Your task to perform on an android device: change notification settings in the gmail app Image 0: 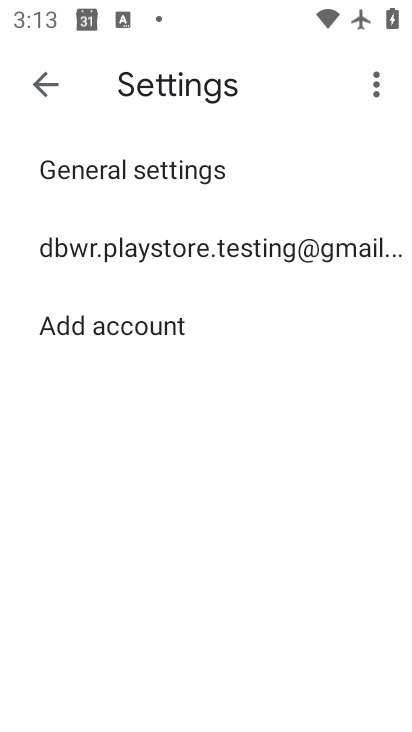
Step 0: press home button
Your task to perform on an android device: change notification settings in the gmail app Image 1: 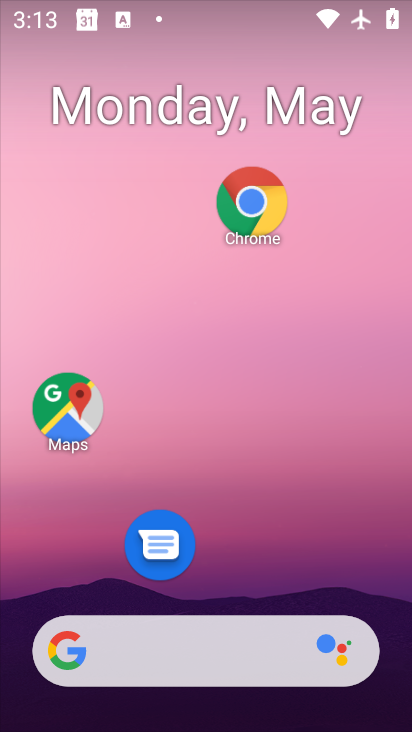
Step 1: drag from (207, 576) to (214, 231)
Your task to perform on an android device: change notification settings in the gmail app Image 2: 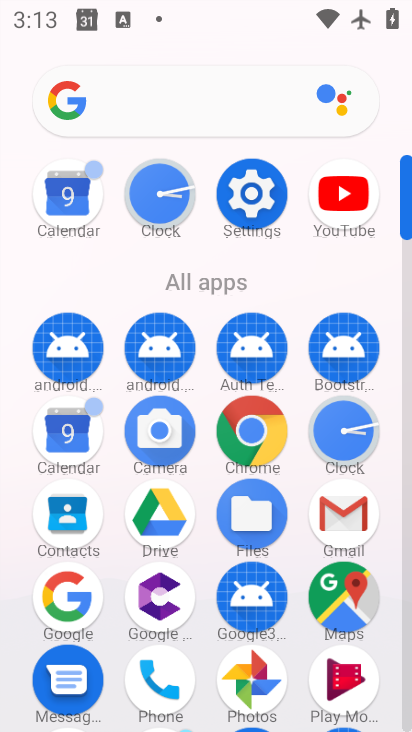
Step 2: click (326, 515)
Your task to perform on an android device: change notification settings in the gmail app Image 3: 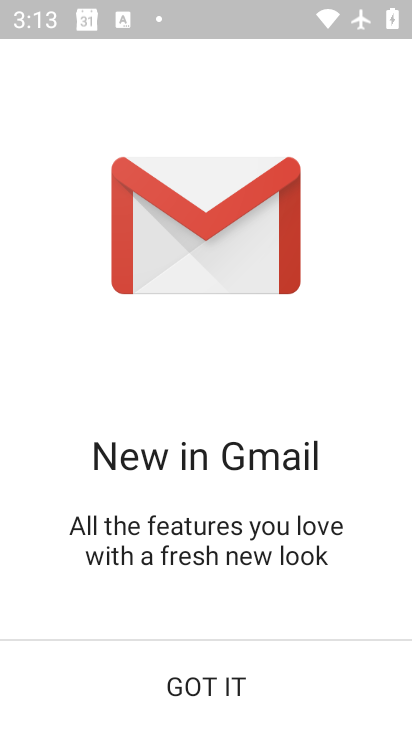
Step 3: click (239, 686)
Your task to perform on an android device: change notification settings in the gmail app Image 4: 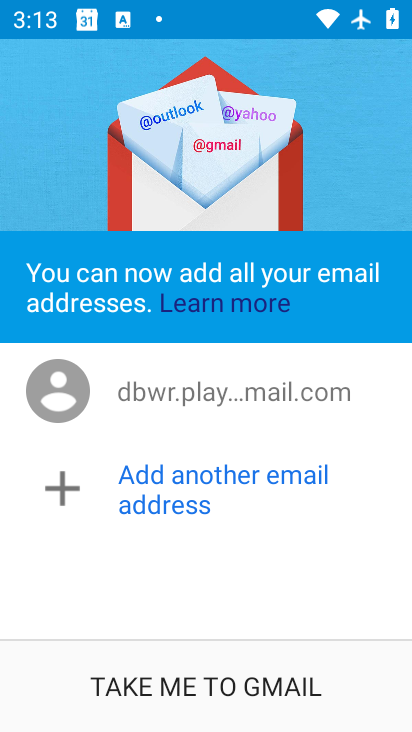
Step 4: click (226, 661)
Your task to perform on an android device: change notification settings in the gmail app Image 5: 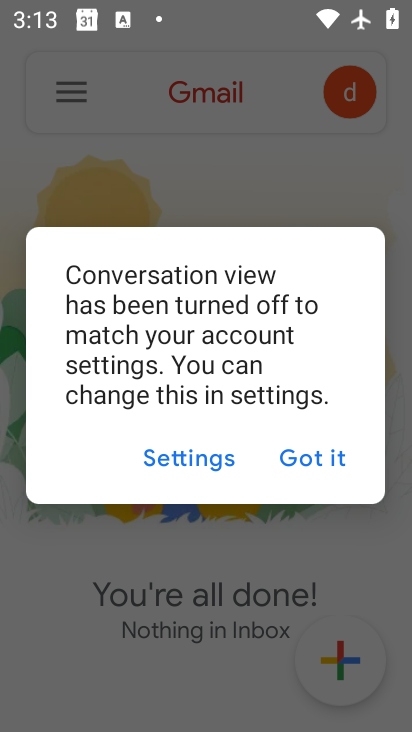
Step 5: click (287, 458)
Your task to perform on an android device: change notification settings in the gmail app Image 6: 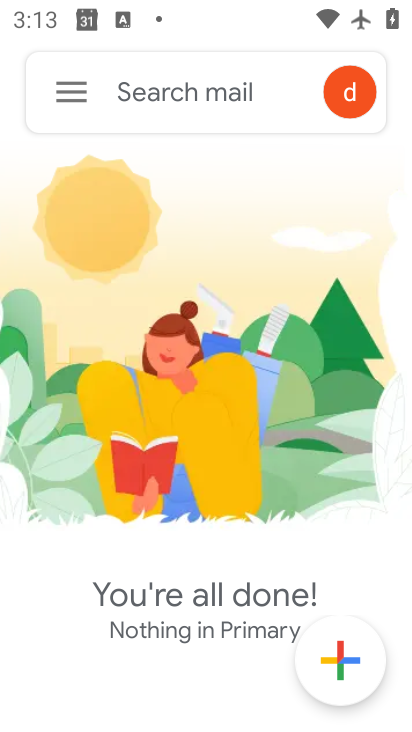
Step 6: click (77, 89)
Your task to perform on an android device: change notification settings in the gmail app Image 7: 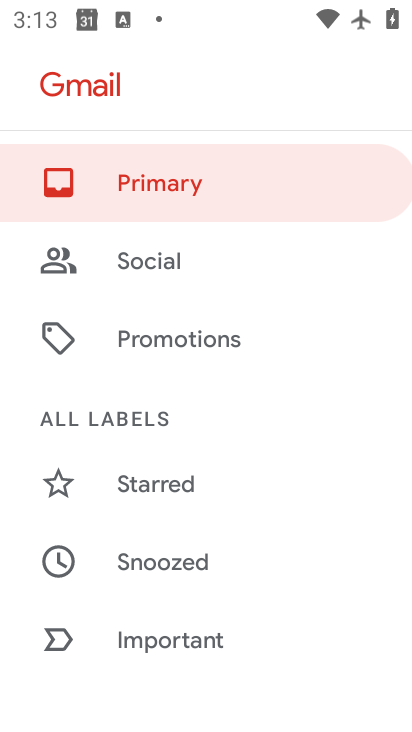
Step 7: drag from (208, 617) to (248, 277)
Your task to perform on an android device: change notification settings in the gmail app Image 8: 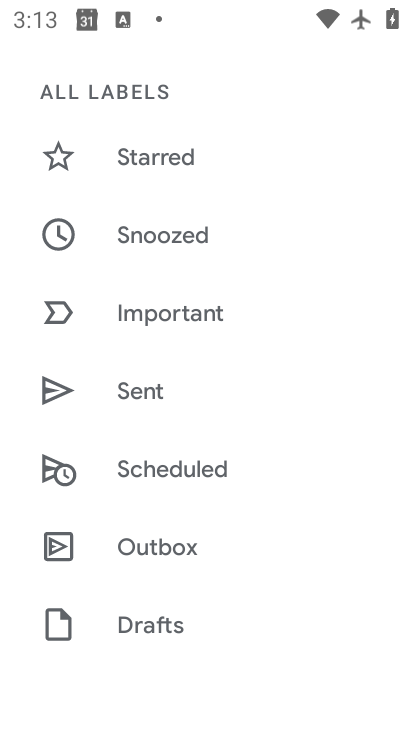
Step 8: drag from (183, 645) to (202, 330)
Your task to perform on an android device: change notification settings in the gmail app Image 9: 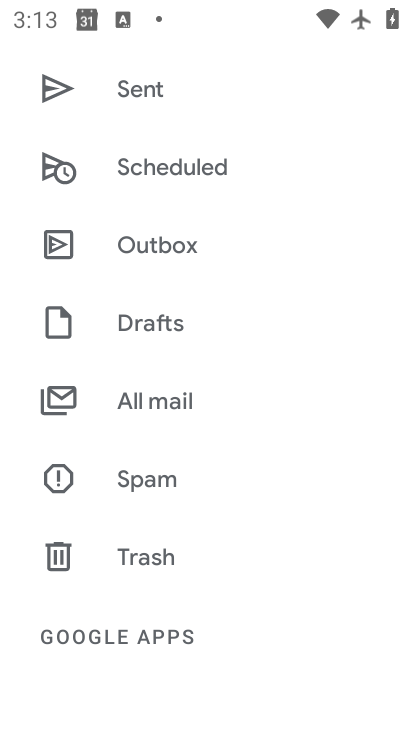
Step 9: drag from (162, 603) to (162, 422)
Your task to perform on an android device: change notification settings in the gmail app Image 10: 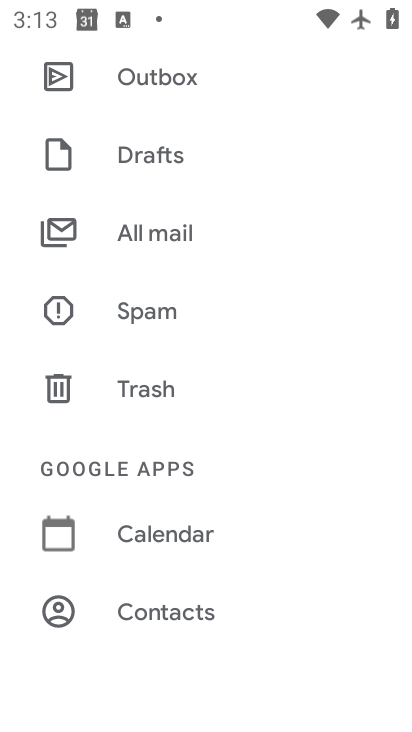
Step 10: drag from (156, 619) to (184, 294)
Your task to perform on an android device: change notification settings in the gmail app Image 11: 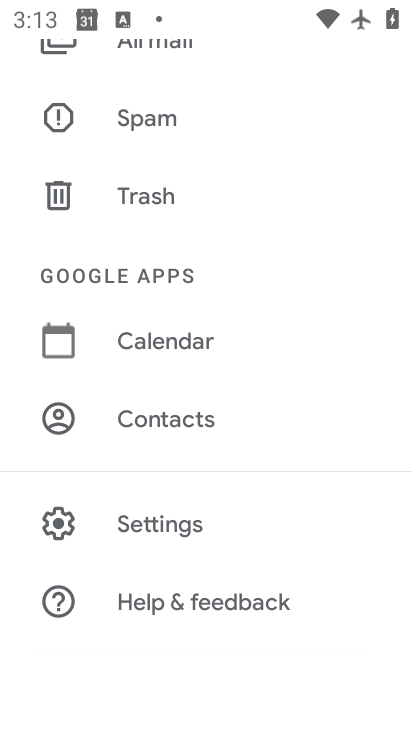
Step 11: click (148, 521)
Your task to perform on an android device: change notification settings in the gmail app Image 12: 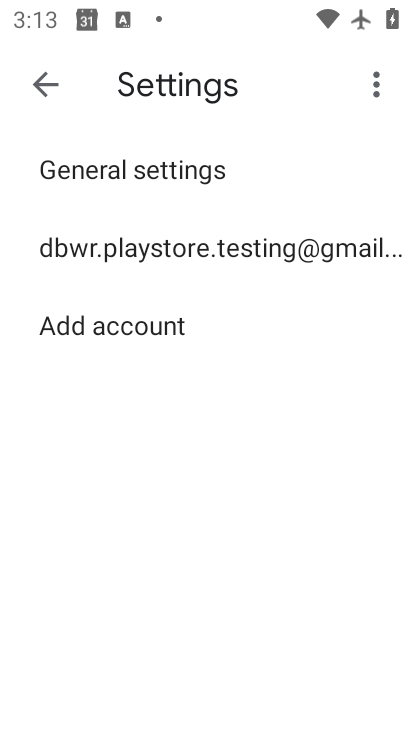
Step 12: click (242, 246)
Your task to perform on an android device: change notification settings in the gmail app Image 13: 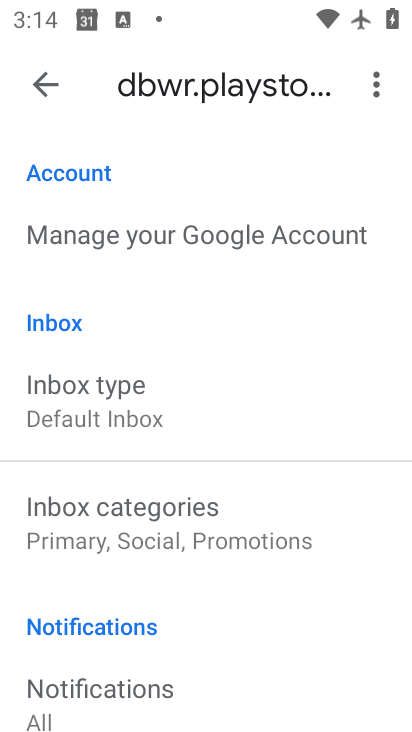
Step 13: drag from (248, 666) to (250, 394)
Your task to perform on an android device: change notification settings in the gmail app Image 14: 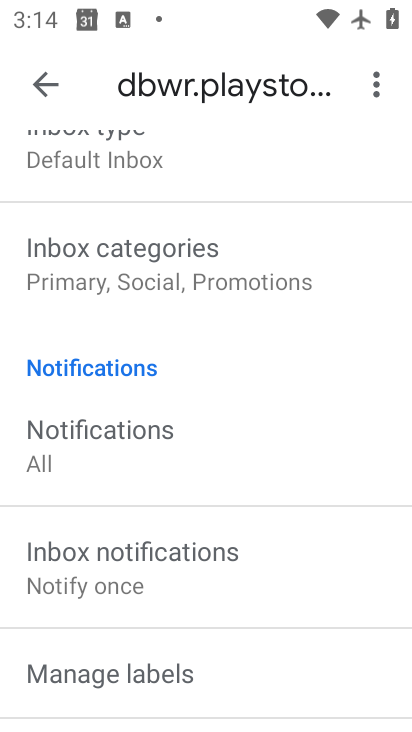
Step 14: drag from (193, 655) to (231, 407)
Your task to perform on an android device: change notification settings in the gmail app Image 15: 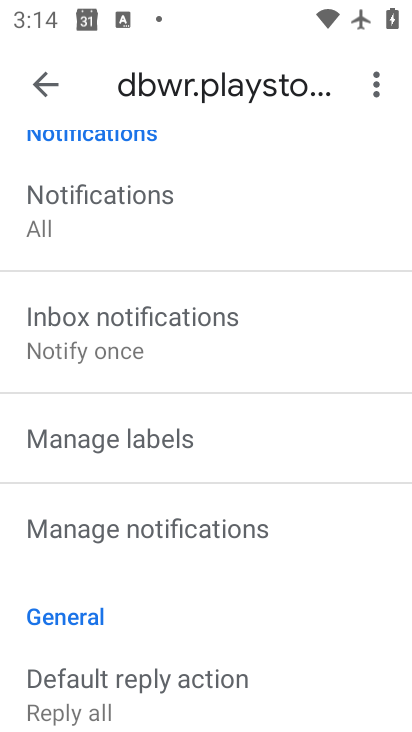
Step 15: click (180, 535)
Your task to perform on an android device: change notification settings in the gmail app Image 16: 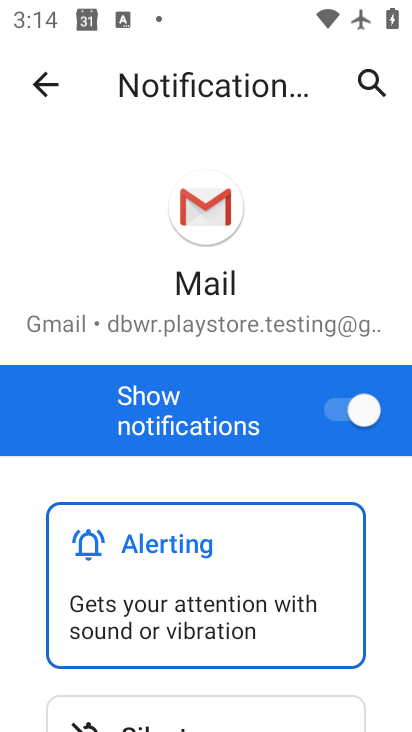
Step 16: click (330, 416)
Your task to perform on an android device: change notification settings in the gmail app Image 17: 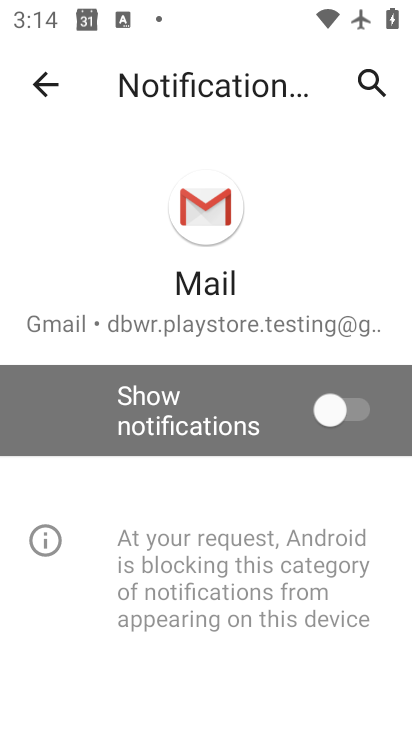
Step 17: task complete